Your task to perform on an android device: Search for macbook on costco, select the first entry, add it to the cart, then select checkout. Image 0: 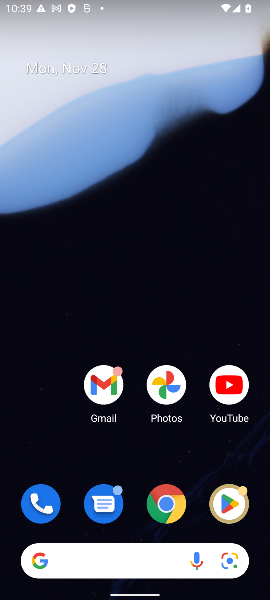
Step 0: click (163, 508)
Your task to perform on an android device: Search for macbook on costco, select the first entry, add it to the cart, then select checkout. Image 1: 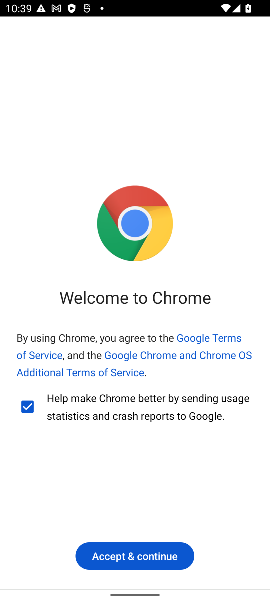
Step 1: click (146, 563)
Your task to perform on an android device: Search for macbook on costco, select the first entry, add it to the cart, then select checkout. Image 2: 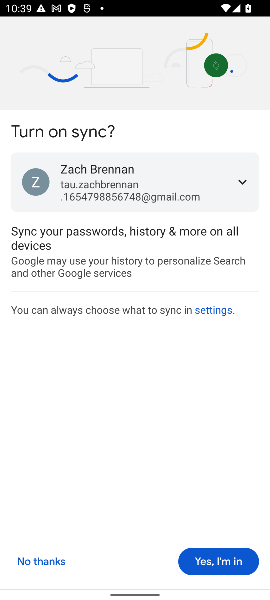
Step 2: click (54, 558)
Your task to perform on an android device: Search for macbook on costco, select the first entry, add it to the cart, then select checkout. Image 3: 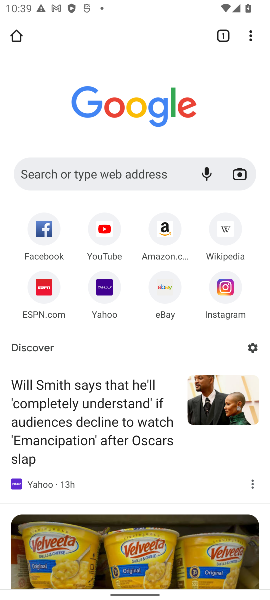
Step 3: click (93, 172)
Your task to perform on an android device: Search for macbook on costco, select the first entry, add it to the cart, then select checkout. Image 4: 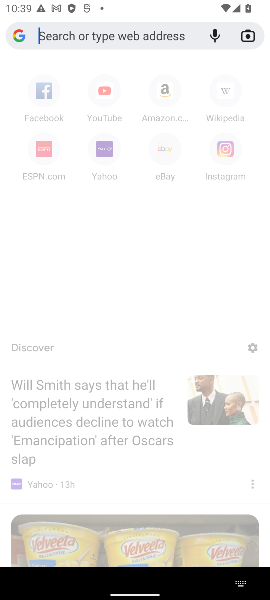
Step 4: type "costco.com"
Your task to perform on an android device: Search for macbook on costco, select the first entry, add it to the cart, then select checkout. Image 5: 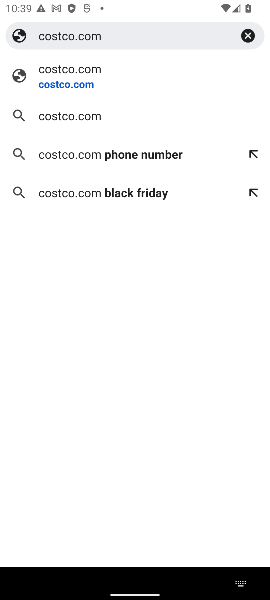
Step 5: click (59, 84)
Your task to perform on an android device: Search for macbook on costco, select the first entry, add it to the cart, then select checkout. Image 6: 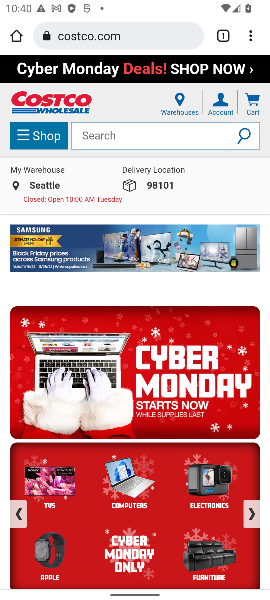
Step 6: click (102, 137)
Your task to perform on an android device: Search for macbook on costco, select the first entry, add it to the cart, then select checkout. Image 7: 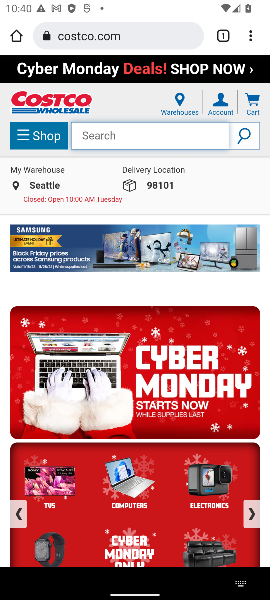
Step 7: type "macbook "
Your task to perform on an android device: Search for macbook on costco, select the first entry, add it to the cart, then select checkout. Image 8: 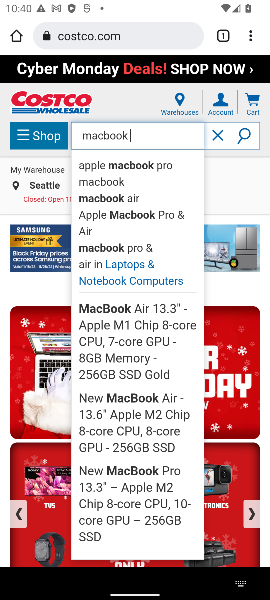
Step 8: click (249, 137)
Your task to perform on an android device: Search for macbook on costco, select the first entry, add it to the cart, then select checkout. Image 9: 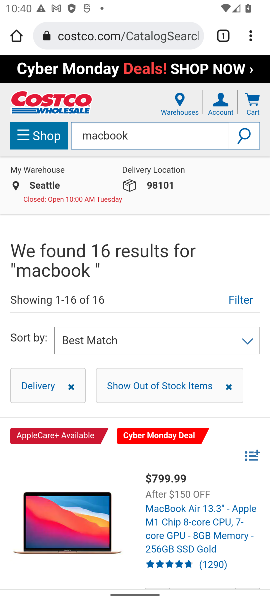
Step 9: click (151, 524)
Your task to perform on an android device: Search for macbook on costco, select the first entry, add it to the cart, then select checkout. Image 10: 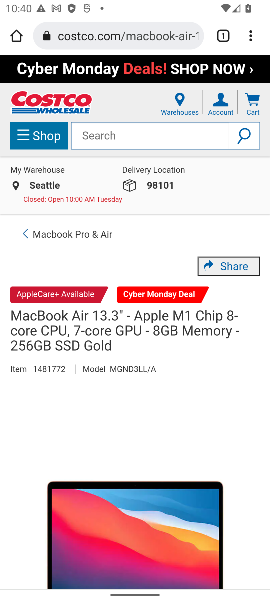
Step 10: drag from (198, 457) to (247, 185)
Your task to perform on an android device: Search for macbook on costco, select the first entry, add it to the cart, then select checkout. Image 11: 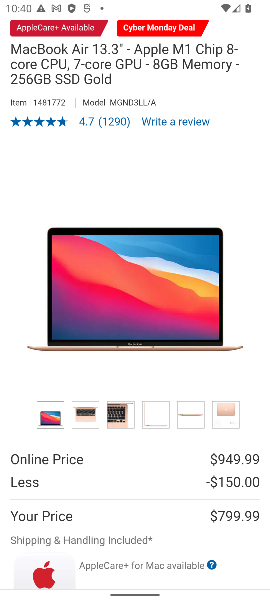
Step 11: drag from (166, 448) to (212, 218)
Your task to perform on an android device: Search for macbook on costco, select the first entry, add it to the cart, then select checkout. Image 12: 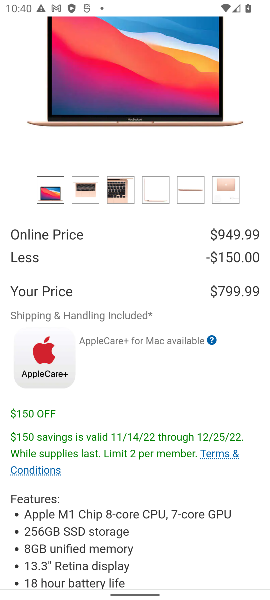
Step 12: drag from (161, 435) to (178, 229)
Your task to perform on an android device: Search for macbook on costco, select the first entry, add it to the cart, then select checkout. Image 13: 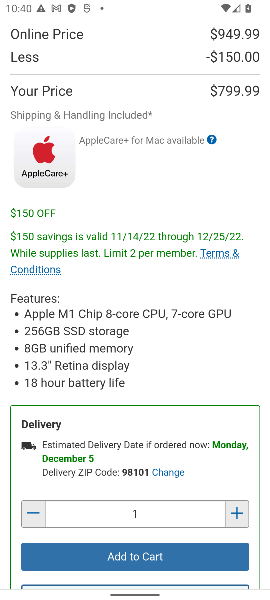
Step 13: drag from (192, 345) to (192, 226)
Your task to perform on an android device: Search for macbook on costco, select the first entry, add it to the cart, then select checkout. Image 14: 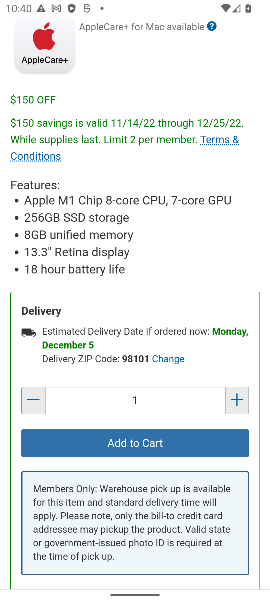
Step 14: click (133, 446)
Your task to perform on an android device: Search for macbook on costco, select the first entry, add it to the cart, then select checkout. Image 15: 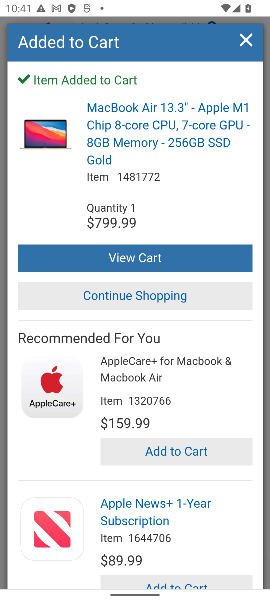
Step 15: click (135, 260)
Your task to perform on an android device: Search for macbook on costco, select the first entry, add it to the cart, then select checkout. Image 16: 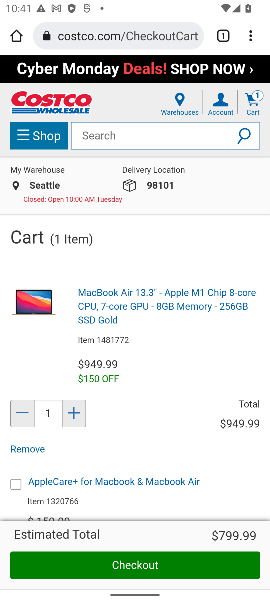
Step 16: click (124, 563)
Your task to perform on an android device: Search for macbook on costco, select the first entry, add it to the cart, then select checkout. Image 17: 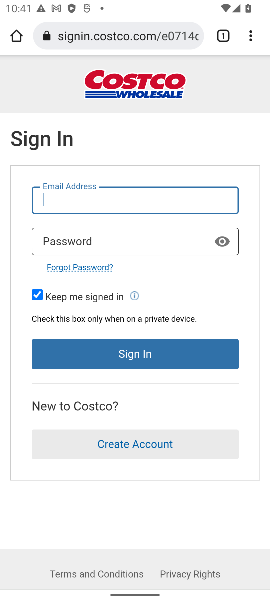
Step 17: task complete